Your task to perform on an android device: What's the weather going to be tomorrow? Image 0: 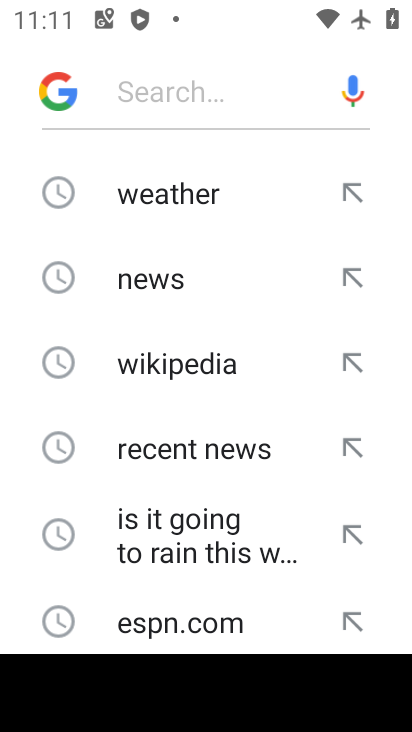
Step 0: press home button
Your task to perform on an android device: What's the weather going to be tomorrow? Image 1: 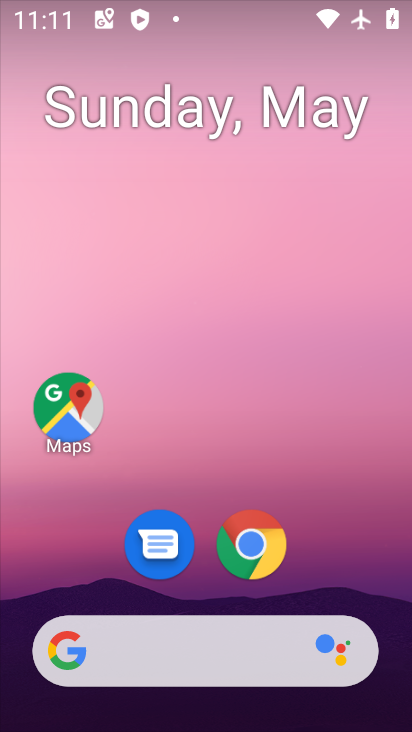
Step 1: drag from (360, 254) to (352, 218)
Your task to perform on an android device: What's the weather going to be tomorrow? Image 2: 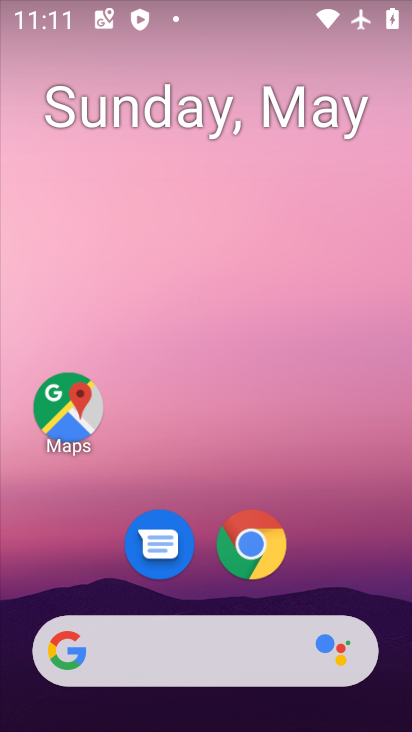
Step 2: drag from (322, 581) to (300, 233)
Your task to perform on an android device: What's the weather going to be tomorrow? Image 3: 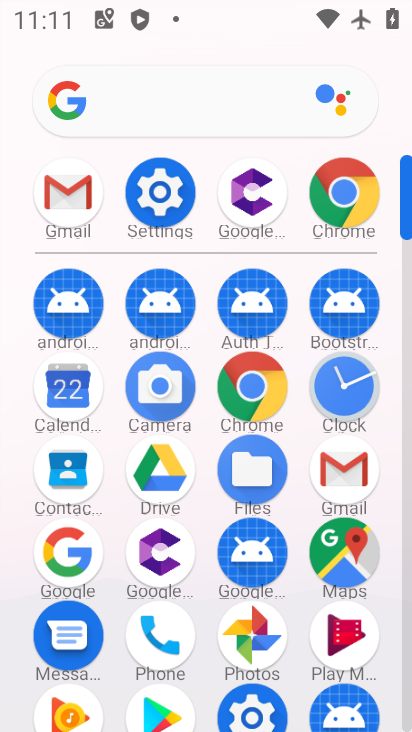
Step 3: click (251, 378)
Your task to perform on an android device: What's the weather going to be tomorrow? Image 4: 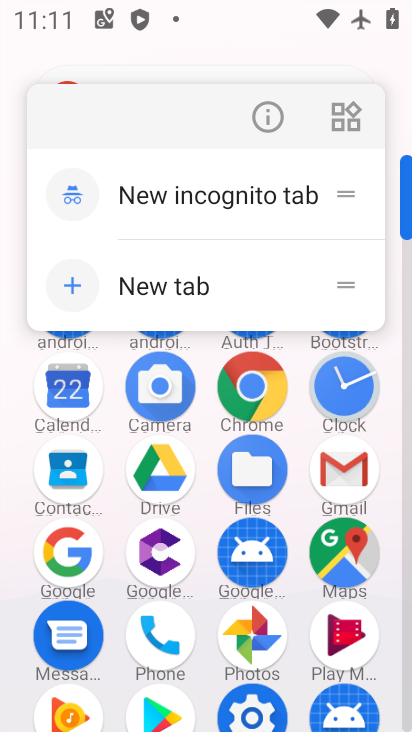
Step 4: click (258, 373)
Your task to perform on an android device: What's the weather going to be tomorrow? Image 5: 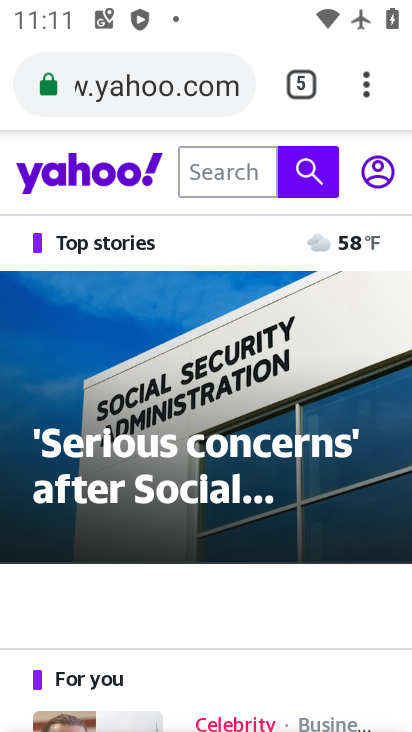
Step 5: click (353, 89)
Your task to perform on an android device: What's the weather going to be tomorrow? Image 6: 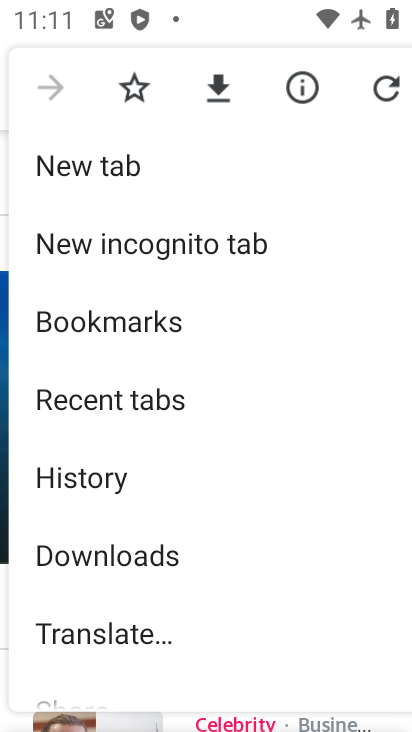
Step 6: click (119, 161)
Your task to perform on an android device: What's the weather going to be tomorrow? Image 7: 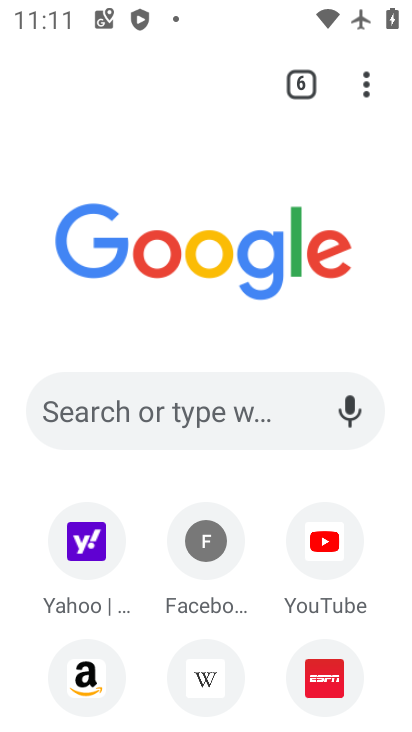
Step 7: click (150, 399)
Your task to perform on an android device: What's the weather going to be tomorrow? Image 8: 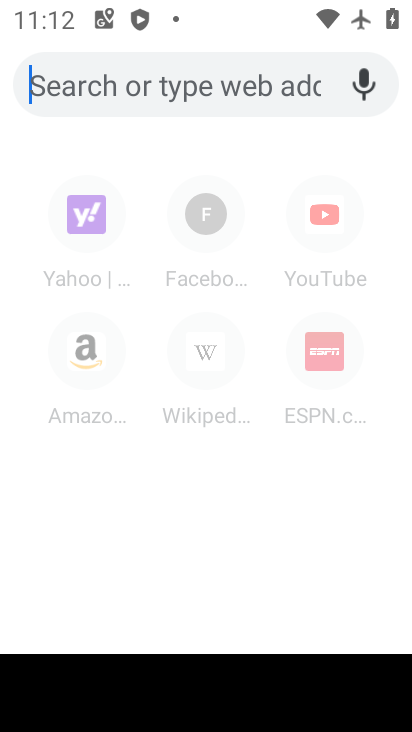
Step 8: type "What's the weather going to be tomorrow?"
Your task to perform on an android device: What's the weather going to be tomorrow? Image 9: 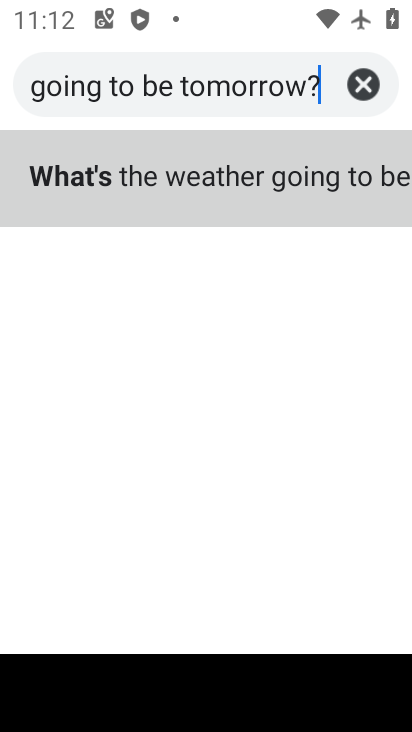
Step 9: click (249, 192)
Your task to perform on an android device: What's the weather going to be tomorrow? Image 10: 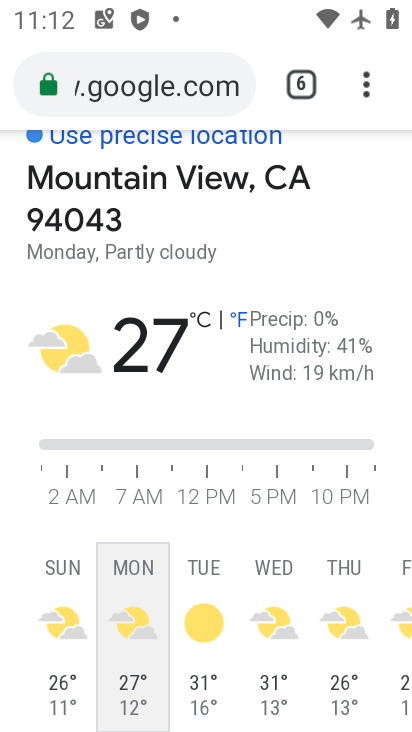
Step 10: task complete